Your task to perform on an android device: Open the web browser Image 0: 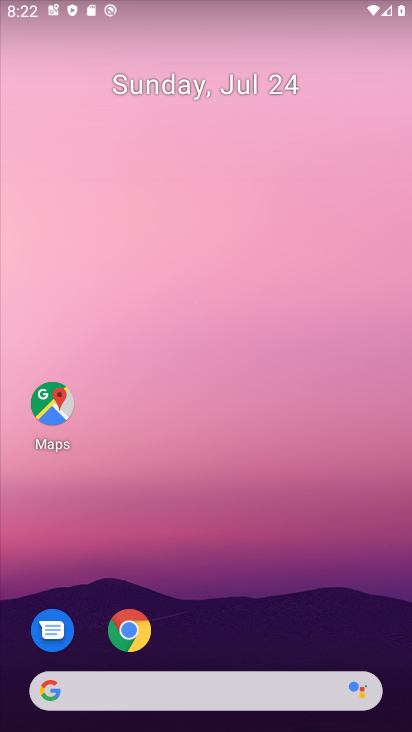
Step 0: click (126, 627)
Your task to perform on an android device: Open the web browser Image 1: 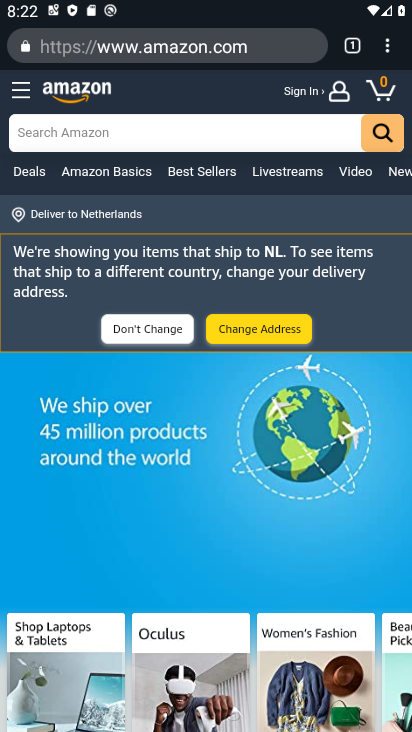
Step 1: task complete